Your task to perform on an android device: check out phone information Image 0: 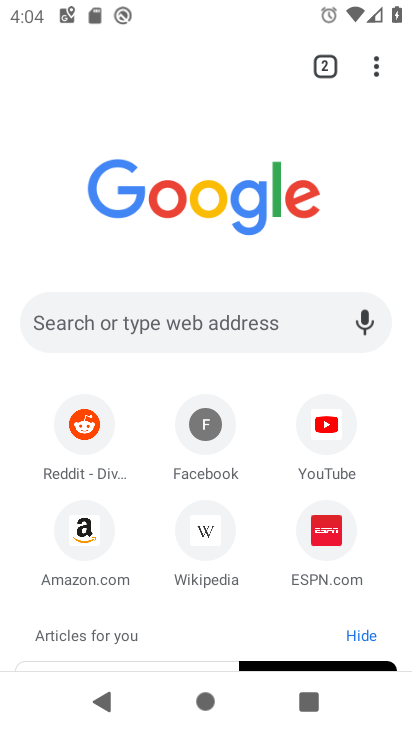
Step 0: press home button
Your task to perform on an android device: check out phone information Image 1: 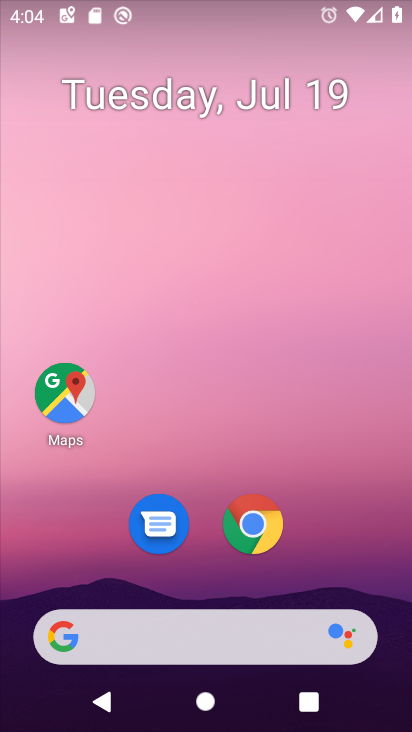
Step 1: drag from (329, 542) to (316, 33)
Your task to perform on an android device: check out phone information Image 2: 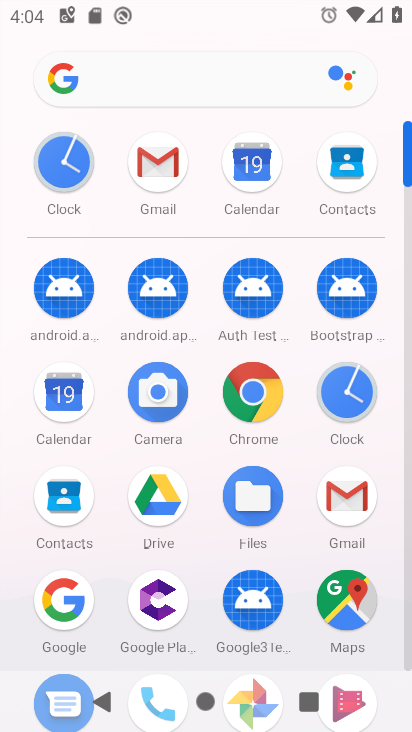
Step 2: drag from (213, 459) to (211, 161)
Your task to perform on an android device: check out phone information Image 3: 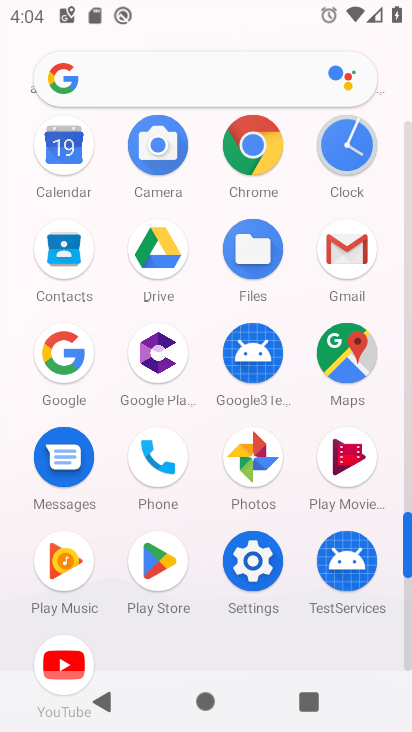
Step 3: click (164, 456)
Your task to perform on an android device: check out phone information Image 4: 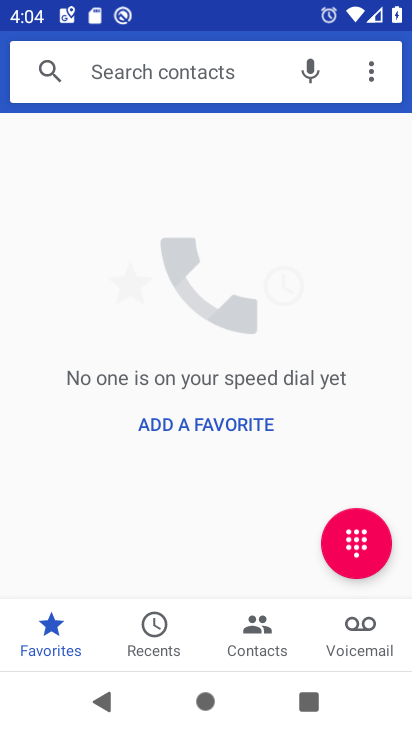
Step 4: click (371, 71)
Your task to perform on an android device: check out phone information Image 5: 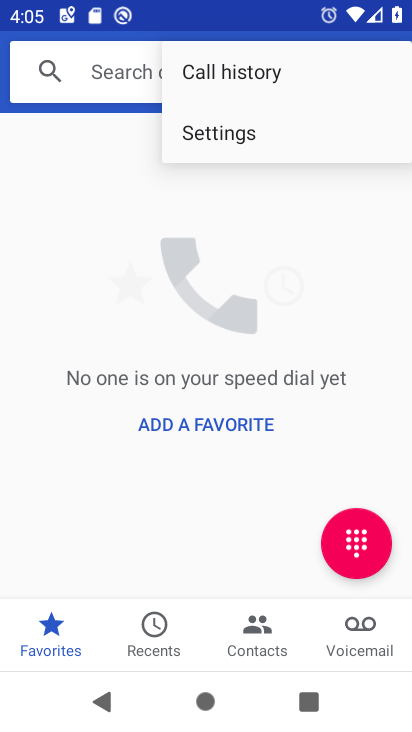
Step 5: click (278, 133)
Your task to perform on an android device: check out phone information Image 6: 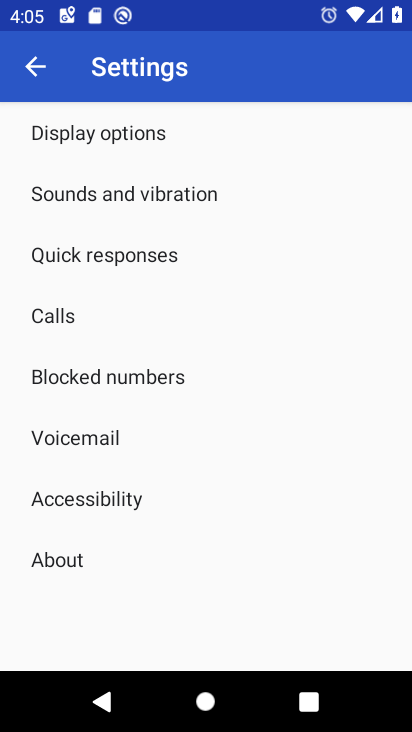
Step 6: click (77, 557)
Your task to perform on an android device: check out phone information Image 7: 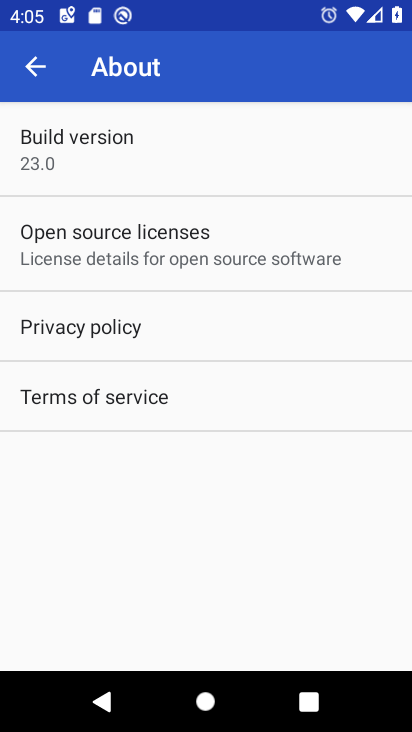
Step 7: task complete